Your task to perform on an android device: Go to Wikipedia Image 0: 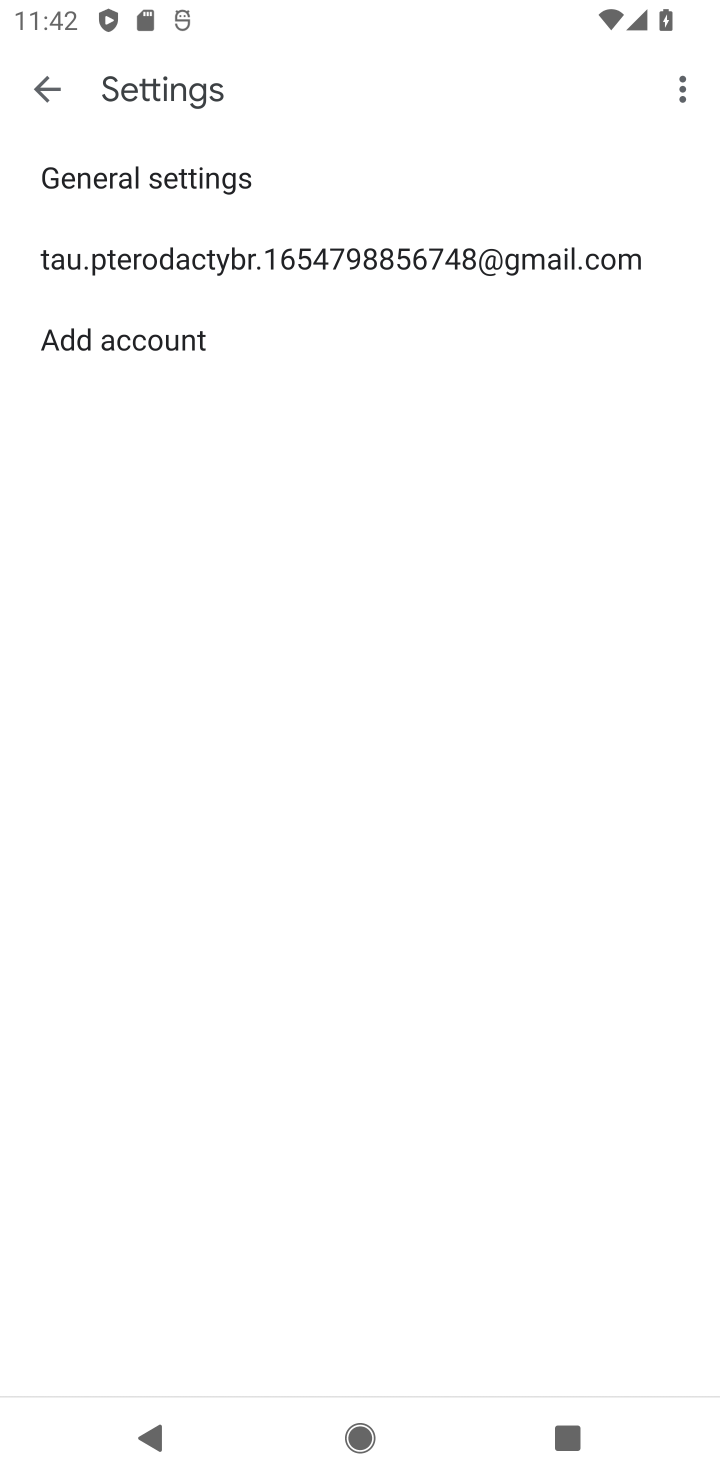
Step 0: press home button
Your task to perform on an android device: Go to Wikipedia Image 1: 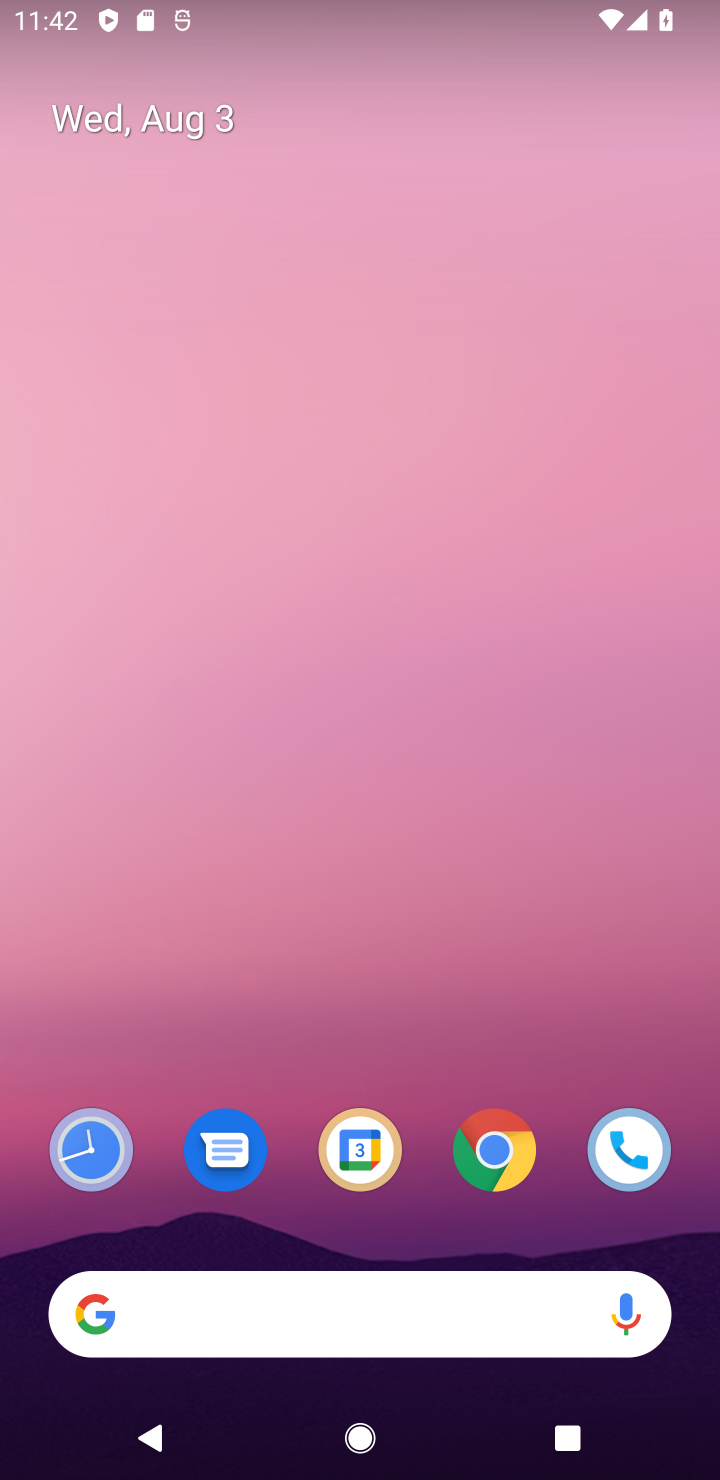
Step 1: drag from (430, 941) to (478, 165)
Your task to perform on an android device: Go to Wikipedia Image 2: 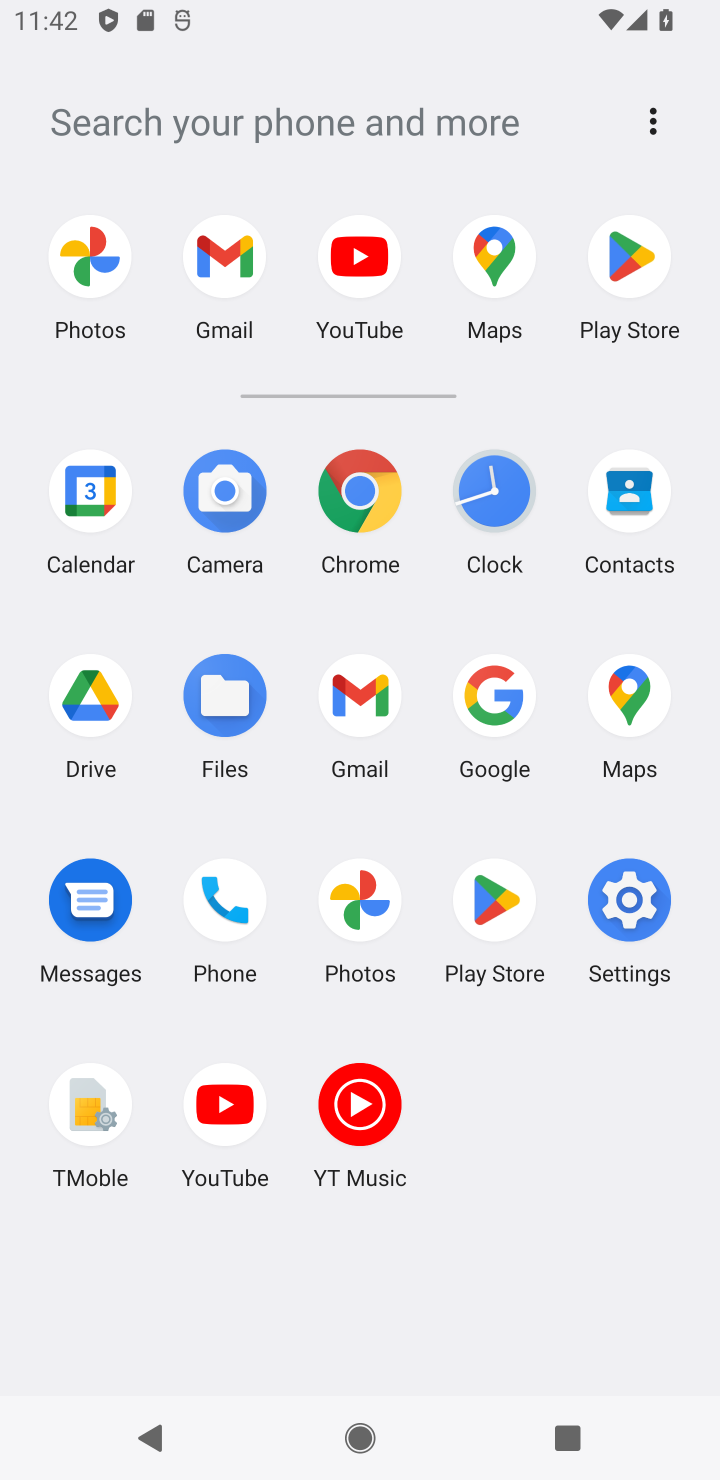
Step 2: click (370, 515)
Your task to perform on an android device: Go to Wikipedia Image 3: 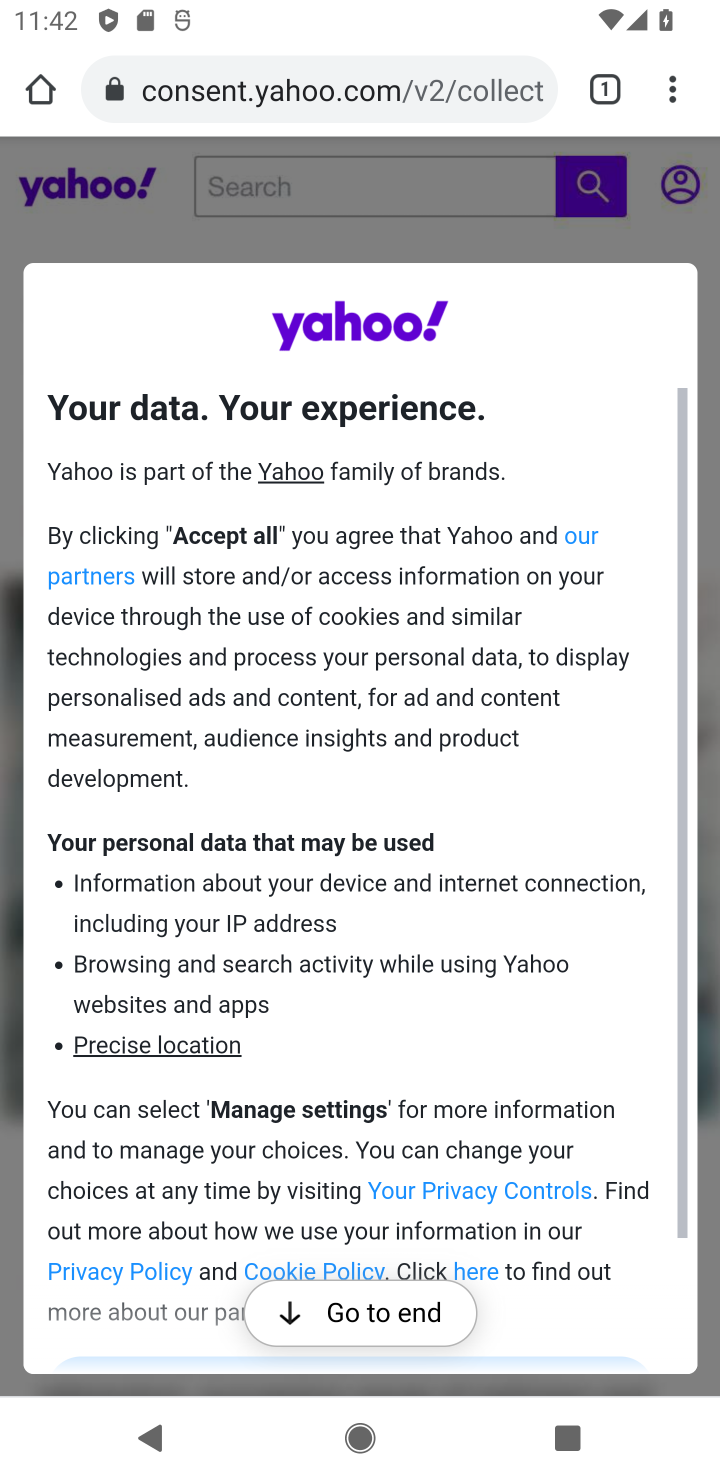
Step 3: click (432, 91)
Your task to perform on an android device: Go to Wikipedia Image 4: 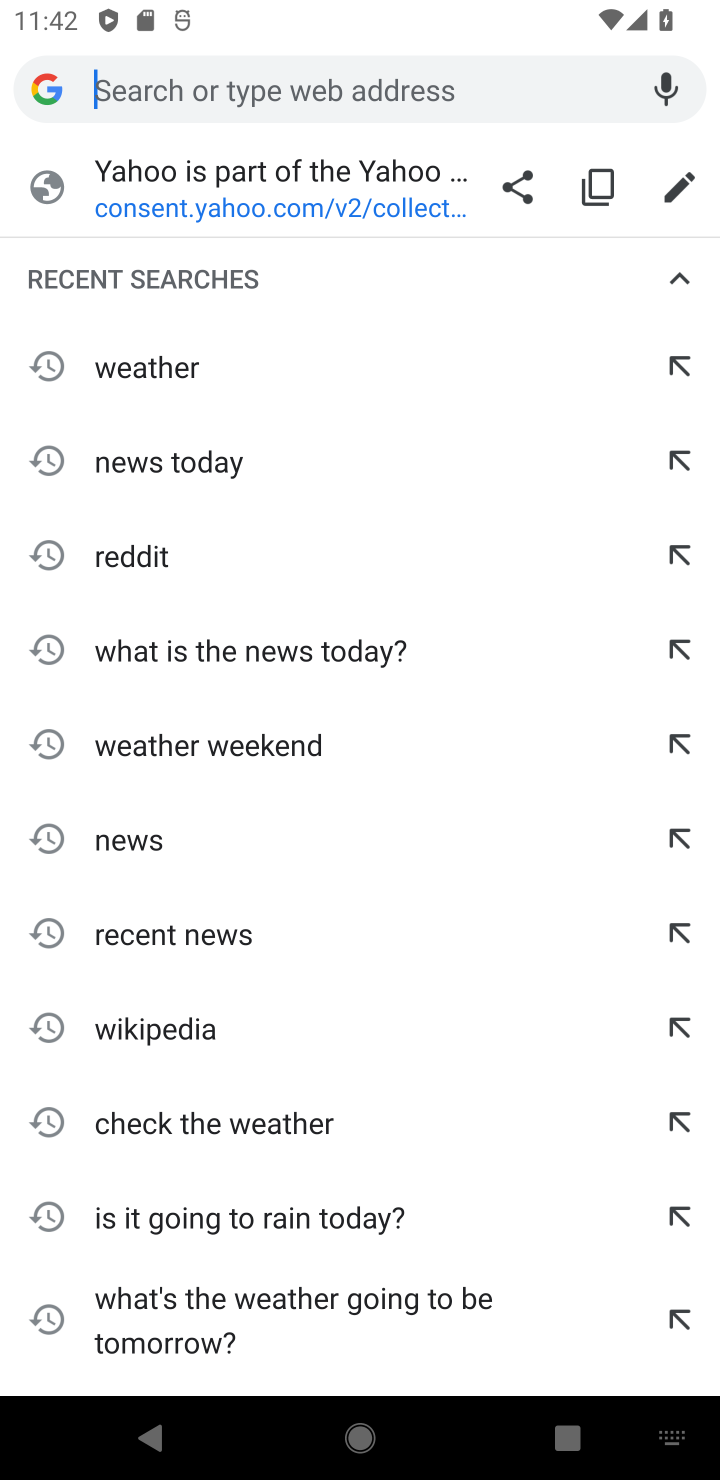
Step 4: type "wikipedia "
Your task to perform on an android device: Go to Wikipedia Image 5: 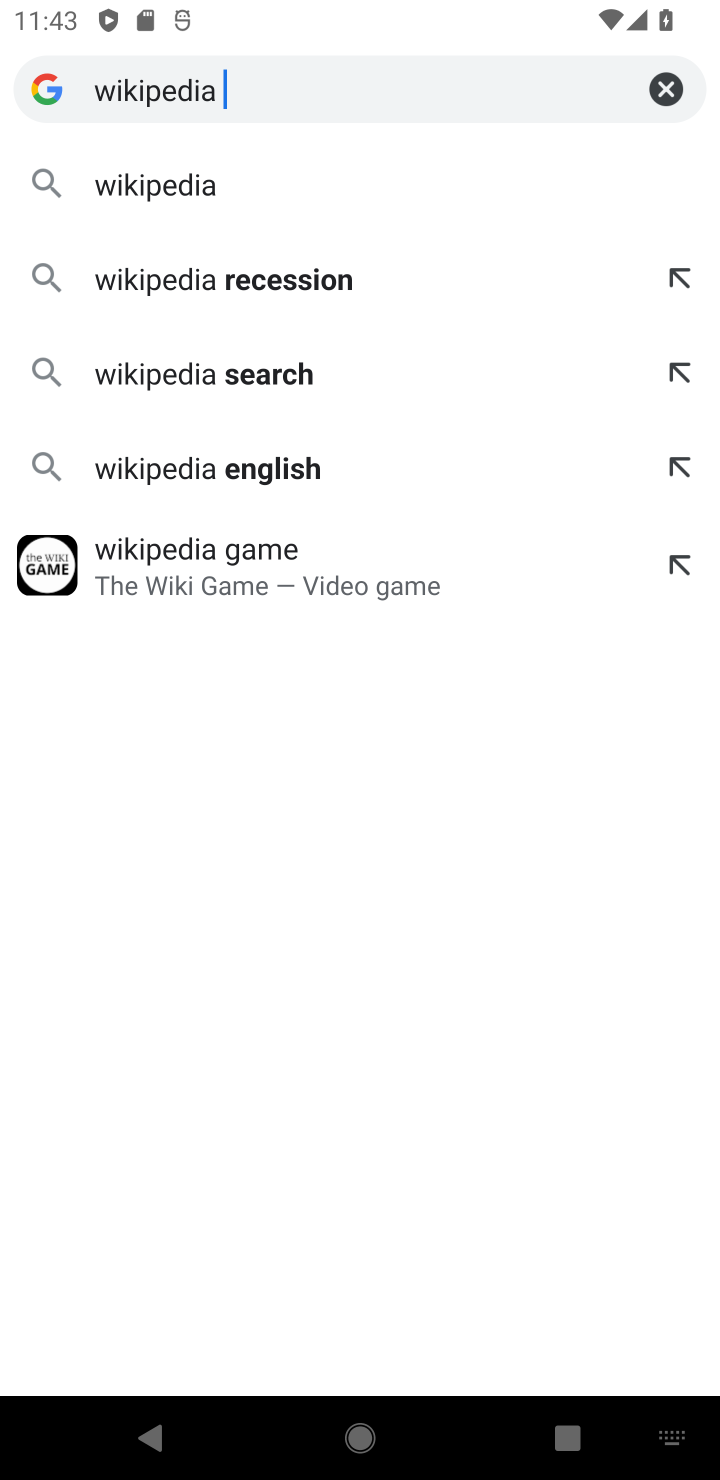
Step 5: click (283, 174)
Your task to perform on an android device: Go to Wikipedia Image 6: 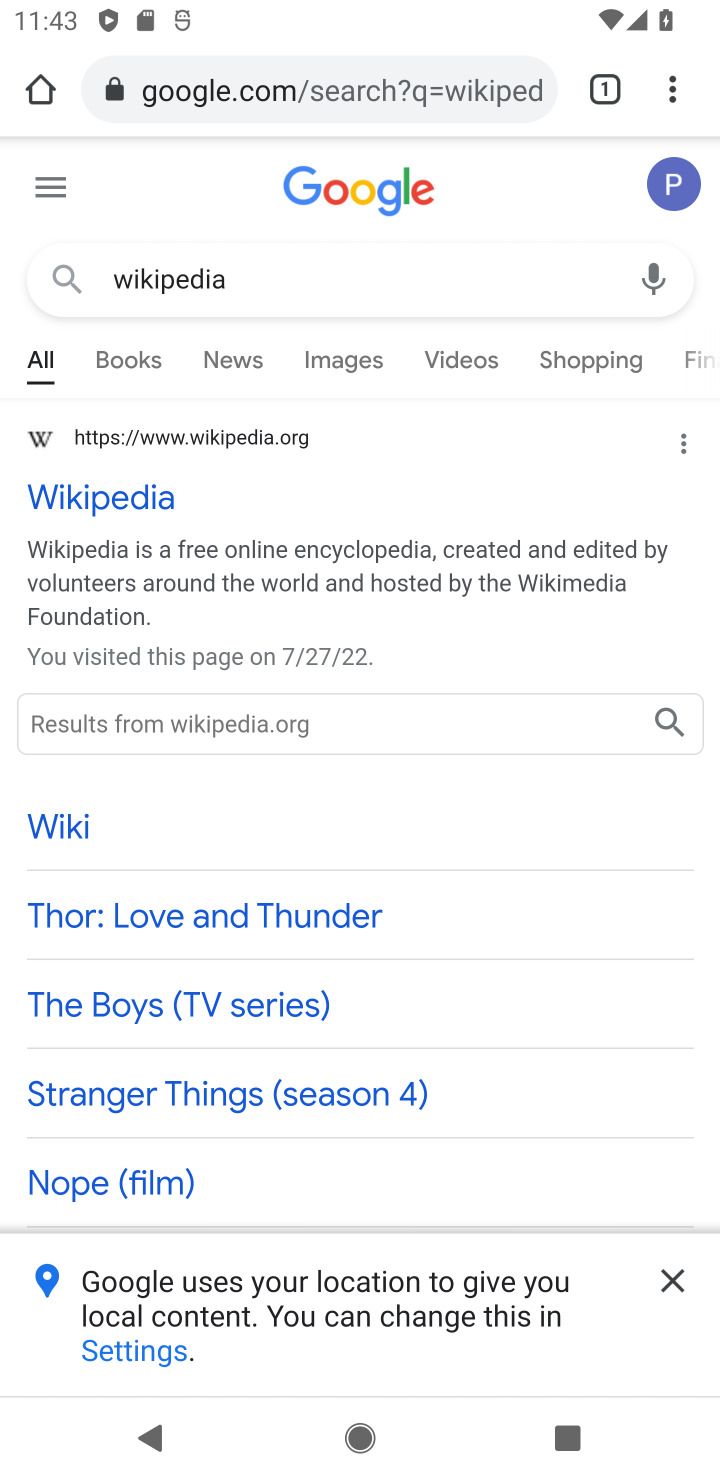
Step 6: task complete